Your task to perform on an android device: Go to wifi settings Image 0: 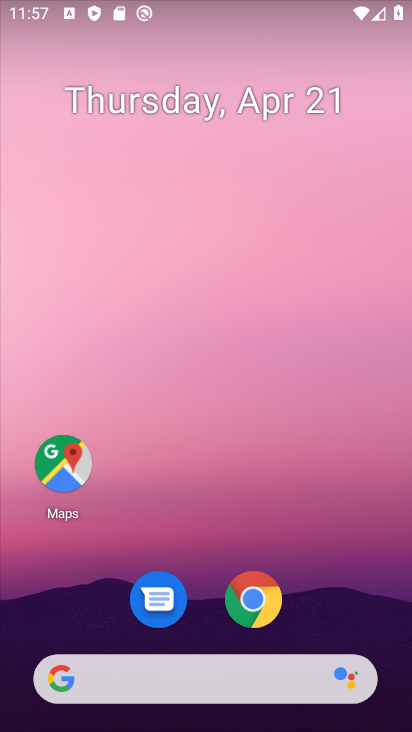
Step 0: drag from (196, 494) to (209, 8)
Your task to perform on an android device: Go to wifi settings Image 1: 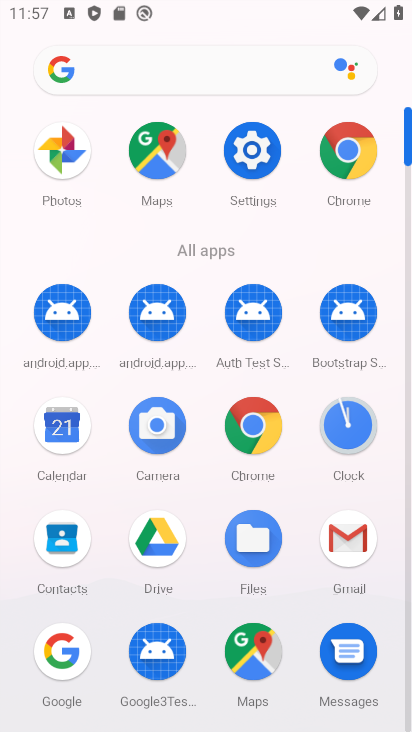
Step 1: click (252, 147)
Your task to perform on an android device: Go to wifi settings Image 2: 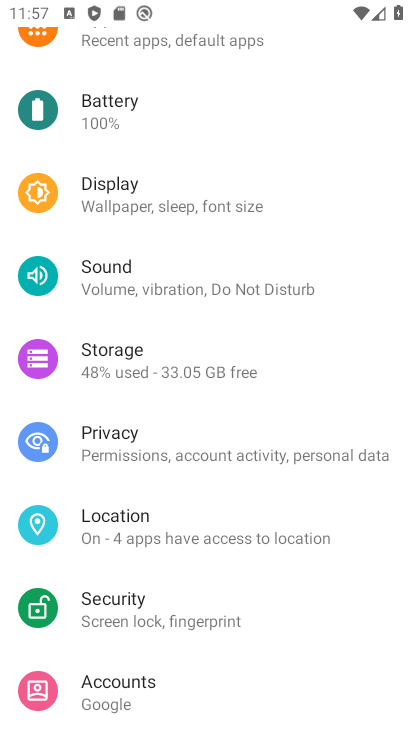
Step 2: drag from (216, 135) to (213, 537)
Your task to perform on an android device: Go to wifi settings Image 3: 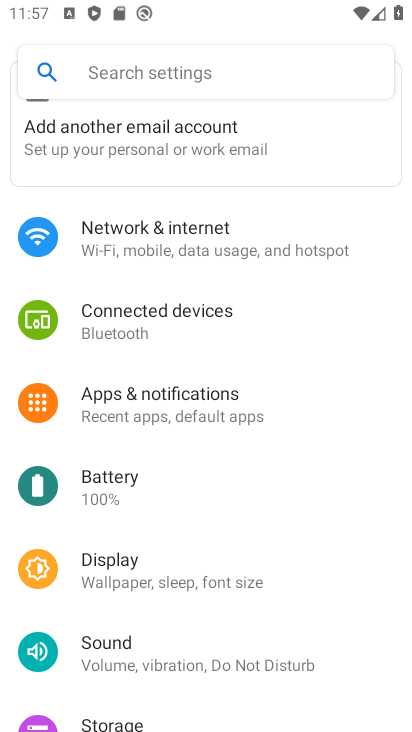
Step 3: click (220, 238)
Your task to perform on an android device: Go to wifi settings Image 4: 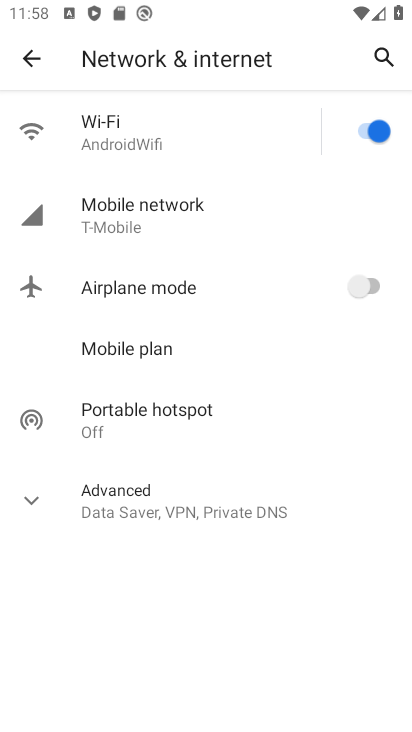
Step 4: click (137, 136)
Your task to perform on an android device: Go to wifi settings Image 5: 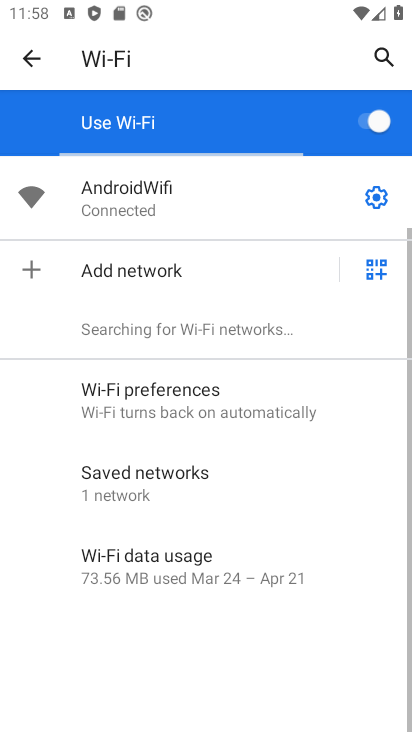
Step 5: task complete